Your task to perform on an android device: Open Youtube and go to the subscriptions tab Image 0: 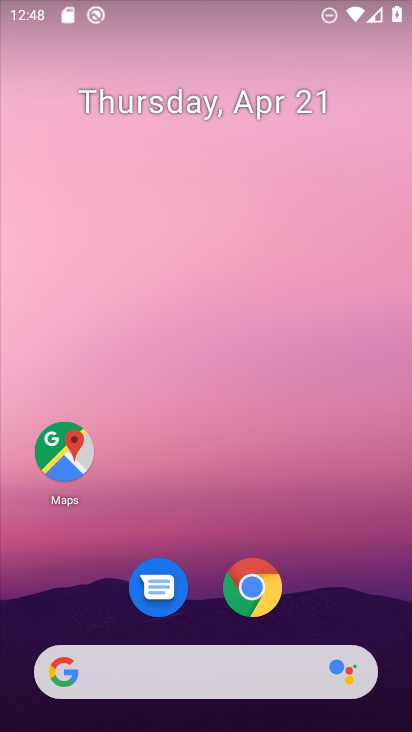
Step 0: drag from (324, 611) to (222, 47)
Your task to perform on an android device: Open Youtube and go to the subscriptions tab Image 1: 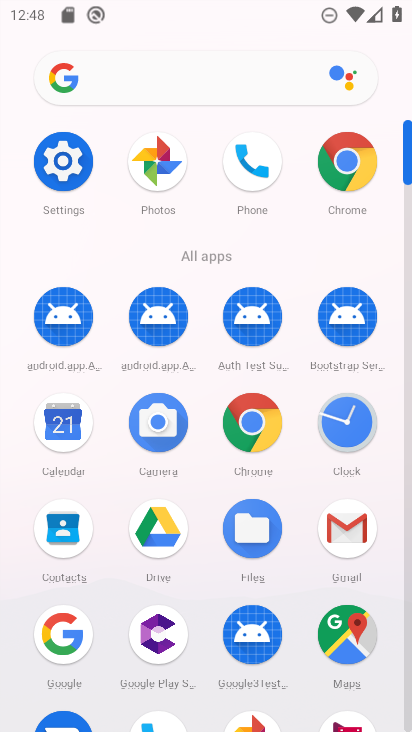
Step 1: drag from (286, 686) to (240, 183)
Your task to perform on an android device: Open Youtube and go to the subscriptions tab Image 2: 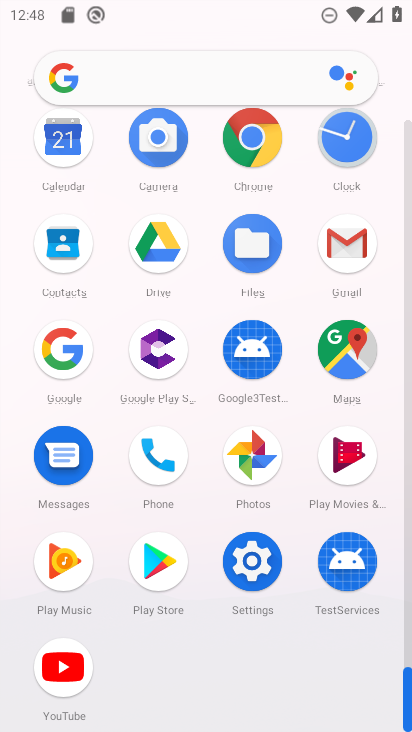
Step 2: click (66, 667)
Your task to perform on an android device: Open Youtube and go to the subscriptions tab Image 3: 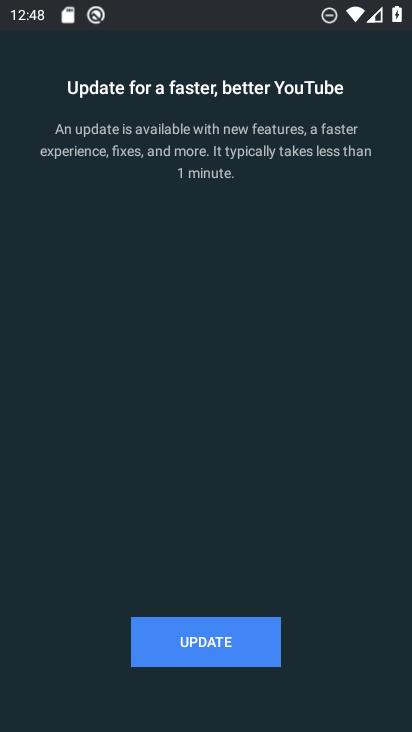
Step 3: click (216, 650)
Your task to perform on an android device: Open Youtube and go to the subscriptions tab Image 4: 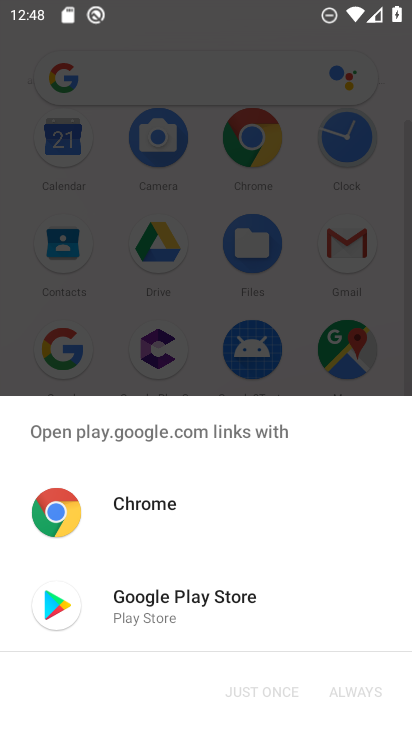
Step 4: click (161, 605)
Your task to perform on an android device: Open Youtube and go to the subscriptions tab Image 5: 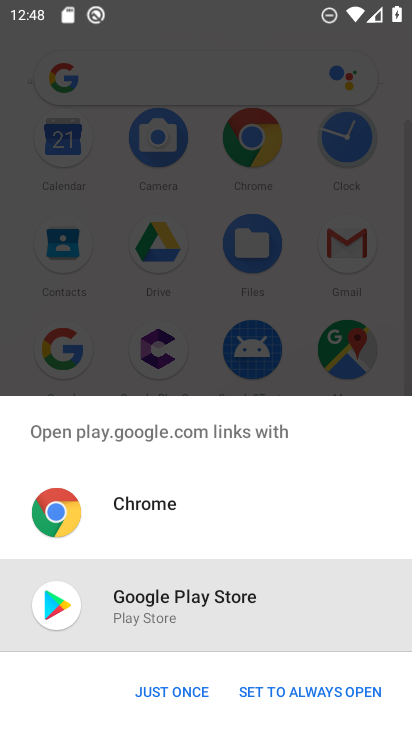
Step 5: click (184, 695)
Your task to perform on an android device: Open Youtube and go to the subscriptions tab Image 6: 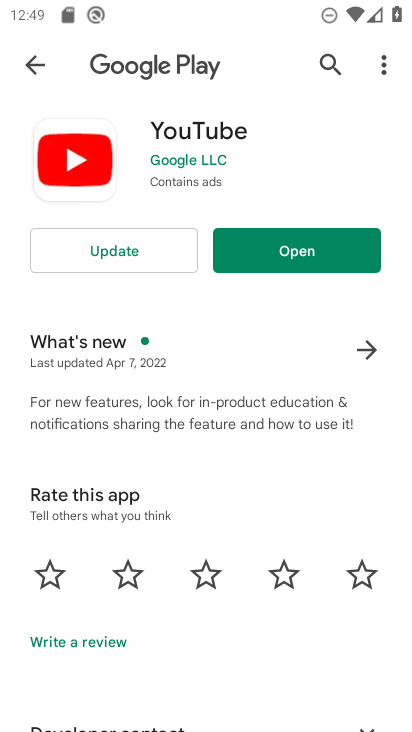
Step 6: click (134, 253)
Your task to perform on an android device: Open Youtube and go to the subscriptions tab Image 7: 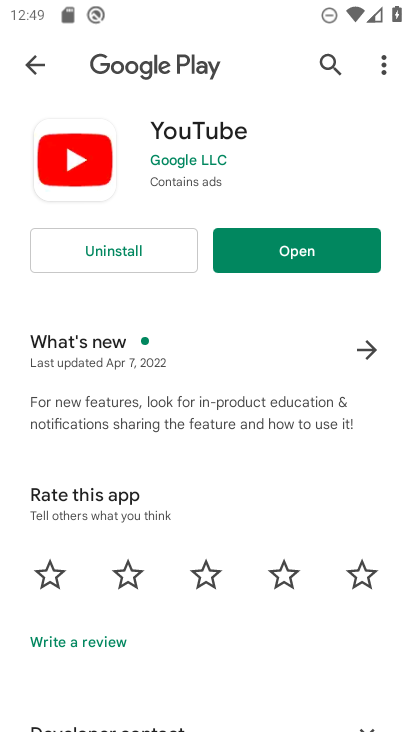
Step 7: click (279, 257)
Your task to perform on an android device: Open Youtube and go to the subscriptions tab Image 8: 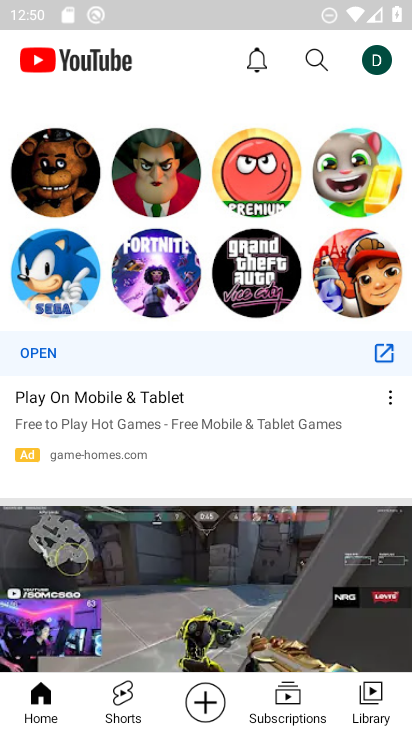
Step 8: click (277, 702)
Your task to perform on an android device: Open Youtube and go to the subscriptions tab Image 9: 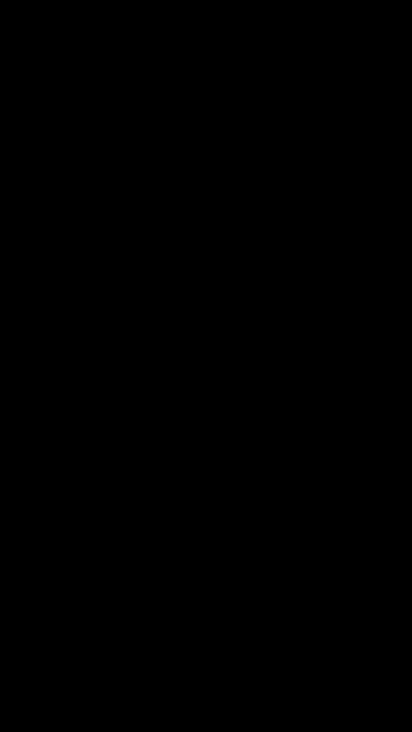
Step 9: task complete